Your task to perform on an android device: check data usage Image 0: 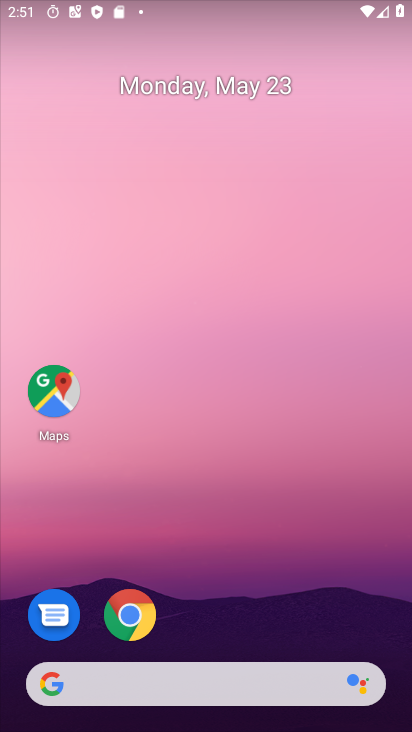
Step 0: drag from (250, 651) to (280, 42)
Your task to perform on an android device: check data usage Image 1: 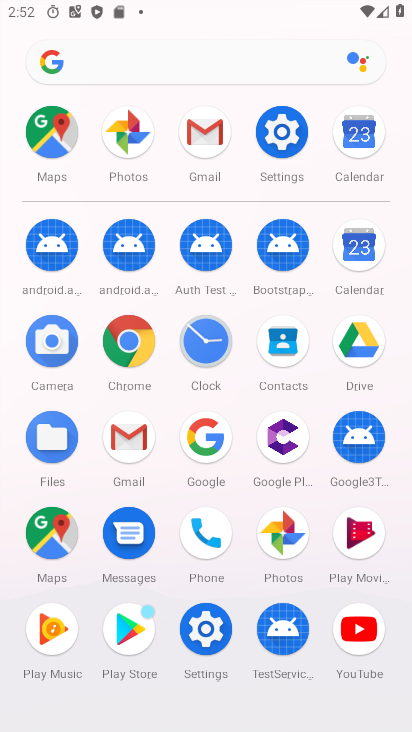
Step 1: click (278, 138)
Your task to perform on an android device: check data usage Image 2: 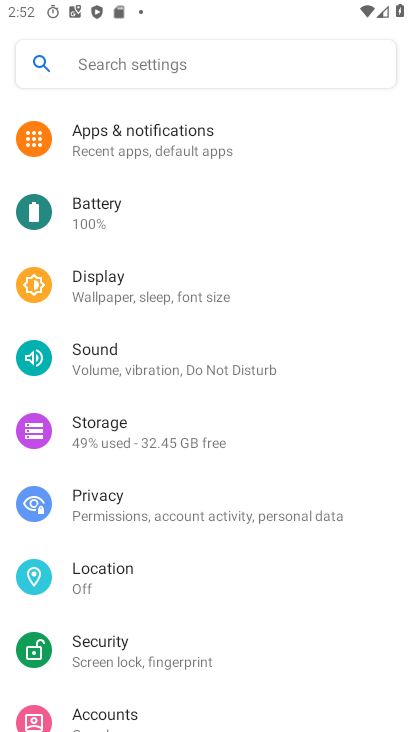
Step 2: drag from (331, 210) to (311, 581)
Your task to perform on an android device: check data usage Image 3: 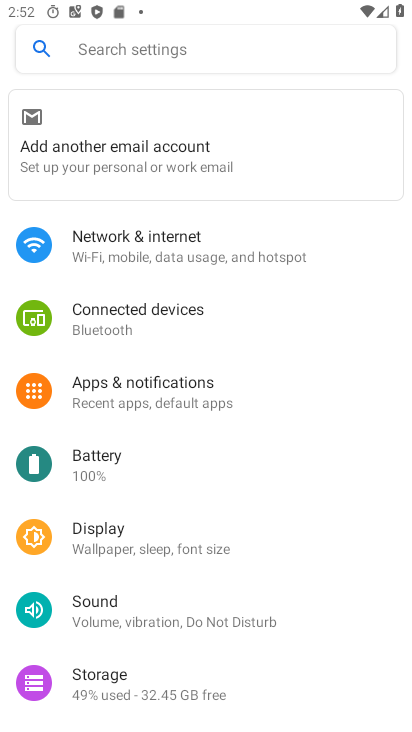
Step 3: click (139, 242)
Your task to perform on an android device: check data usage Image 4: 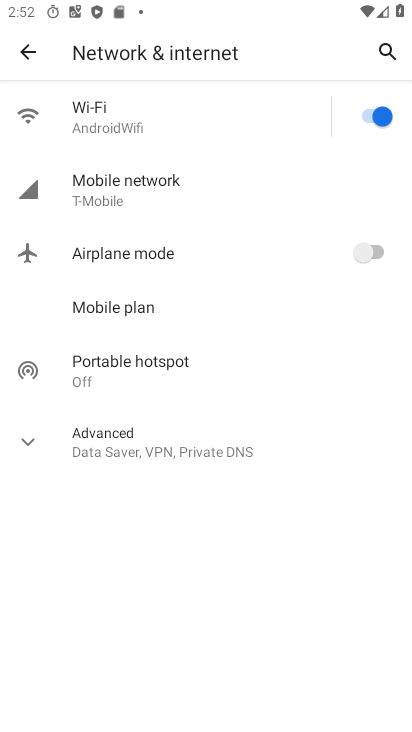
Step 4: click (84, 189)
Your task to perform on an android device: check data usage Image 5: 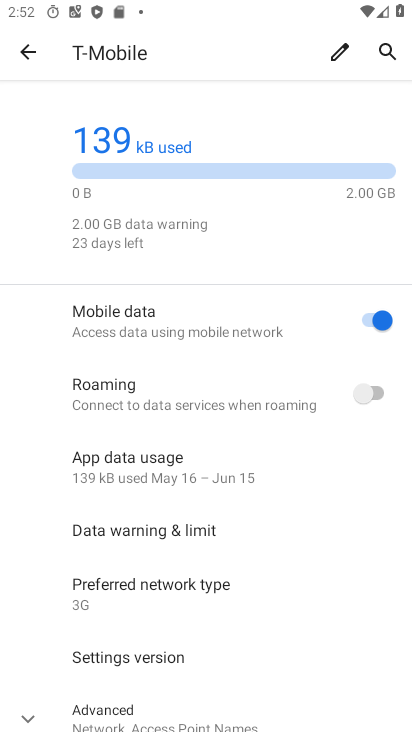
Step 5: click (110, 473)
Your task to perform on an android device: check data usage Image 6: 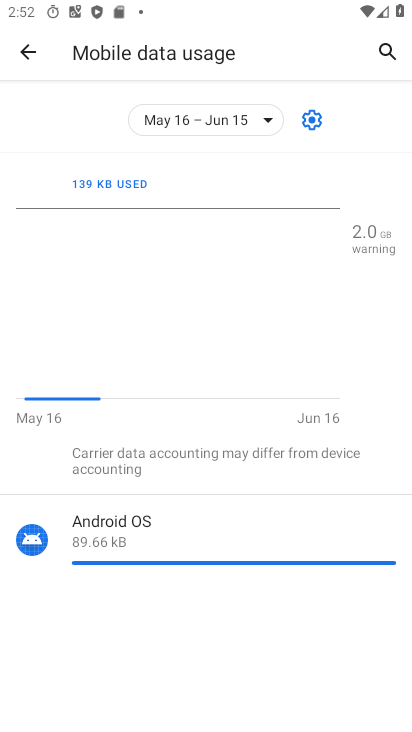
Step 6: task complete